Your task to perform on an android device: Search for sushi restaurants on Maps Image 0: 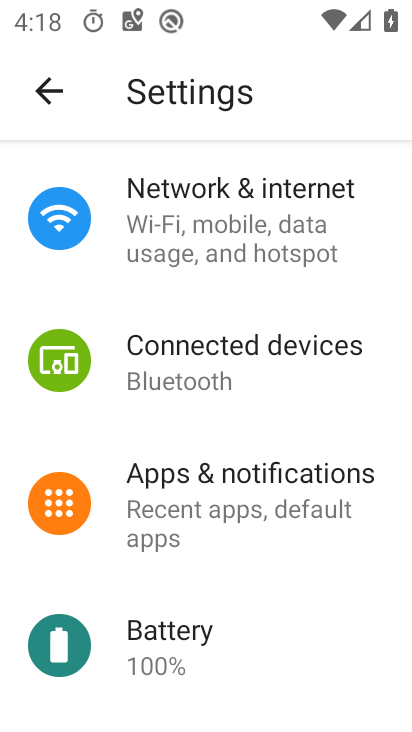
Step 0: click (54, 88)
Your task to perform on an android device: Search for sushi restaurants on Maps Image 1: 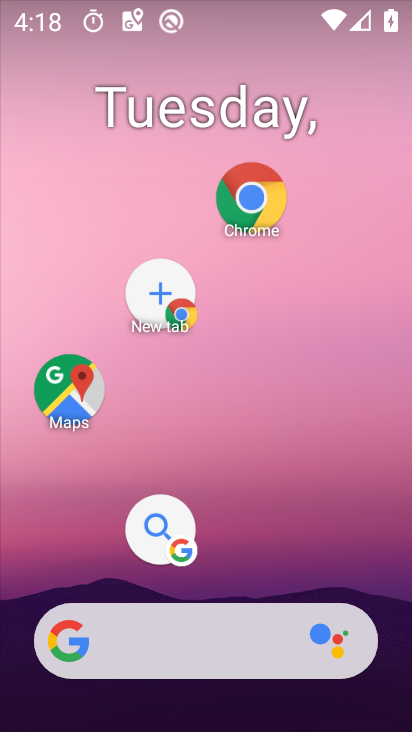
Step 1: drag from (248, 600) to (204, 222)
Your task to perform on an android device: Search for sushi restaurants on Maps Image 2: 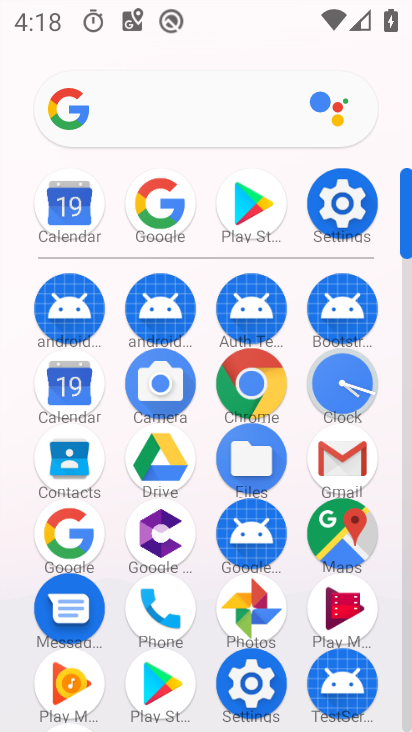
Step 2: click (352, 531)
Your task to perform on an android device: Search for sushi restaurants on Maps Image 3: 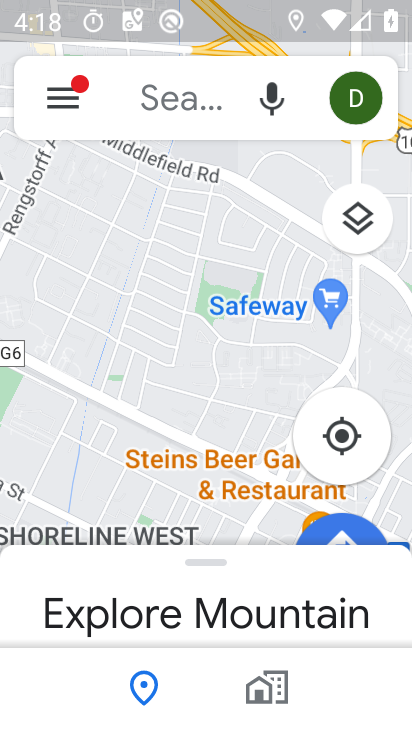
Step 3: click (159, 108)
Your task to perform on an android device: Search for sushi restaurants on Maps Image 4: 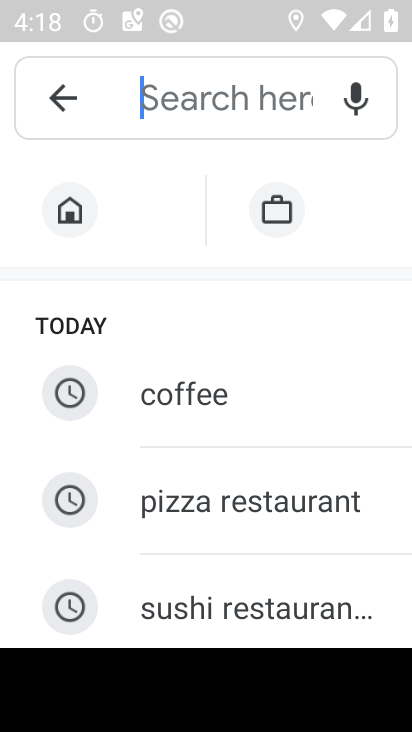
Step 4: drag from (226, 532) to (225, 278)
Your task to perform on an android device: Search for sushi restaurants on Maps Image 5: 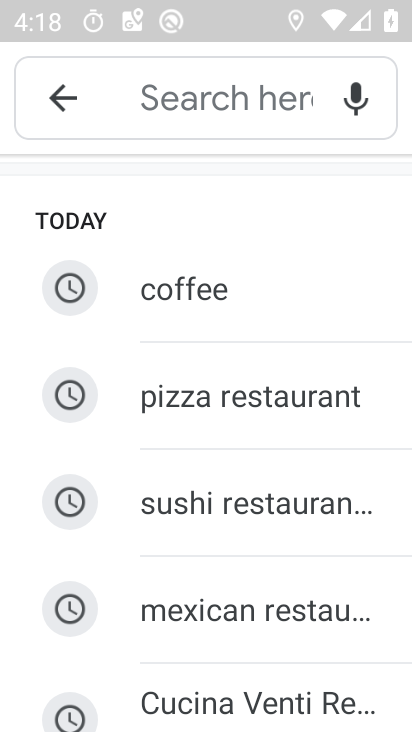
Step 5: click (207, 507)
Your task to perform on an android device: Search for sushi restaurants on Maps Image 6: 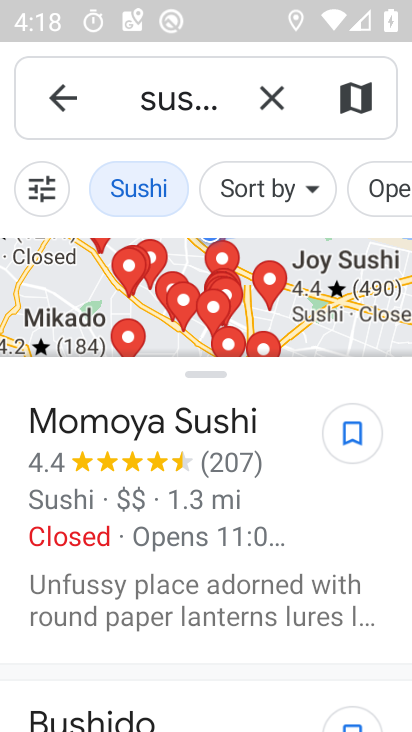
Step 6: task complete